Your task to perform on an android device: turn off improve location accuracy Image 0: 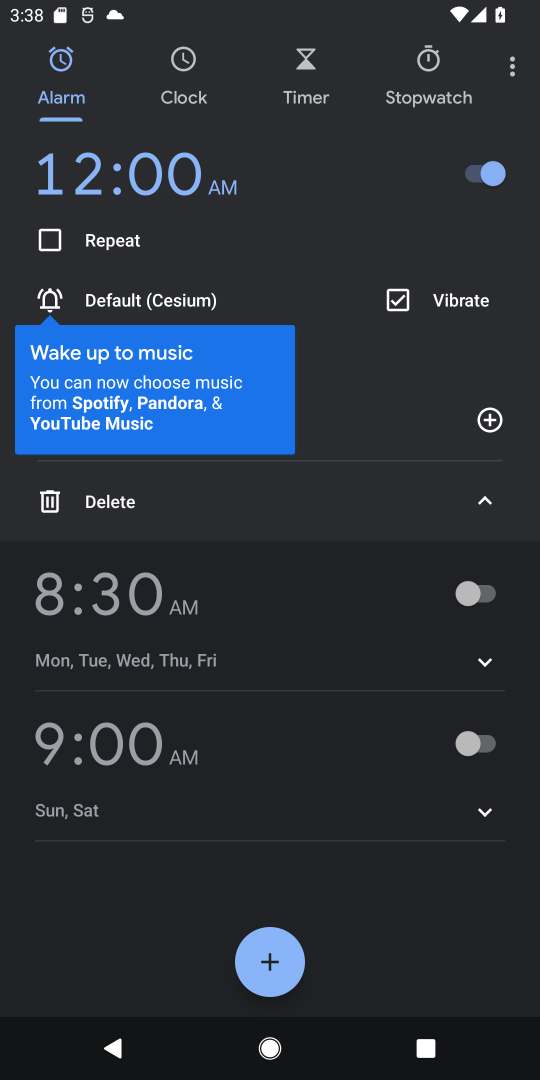
Step 0: press home button
Your task to perform on an android device: turn off improve location accuracy Image 1: 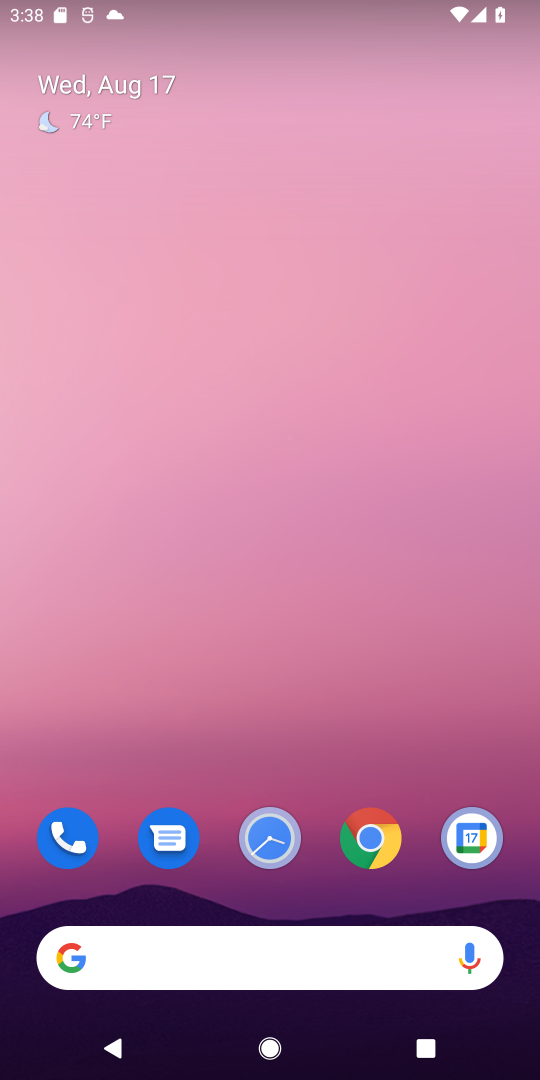
Step 1: drag from (180, 618) to (126, 107)
Your task to perform on an android device: turn off improve location accuracy Image 2: 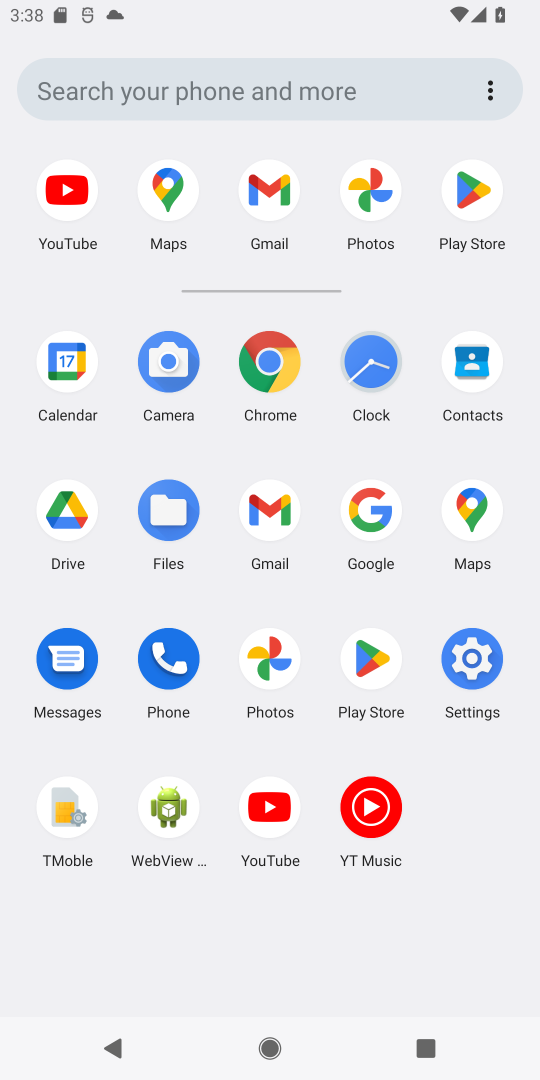
Step 2: click (474, 657)
Your task to perform on an android device: turn off improve location accuracy Image 3: 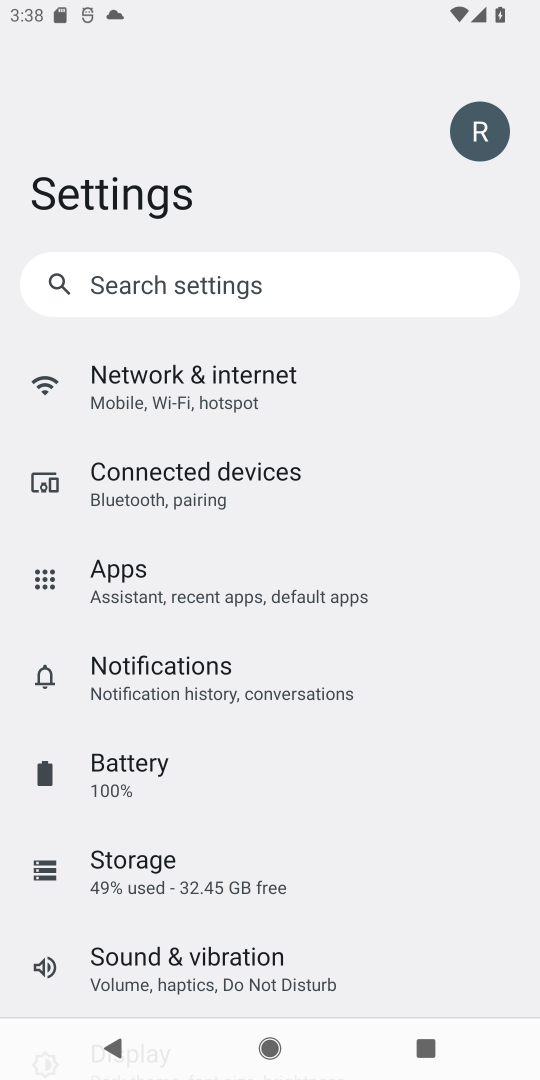
Step 3: drag from (213, 918) to (188, 441)
Your task to perform on an android device: turn off improve location accuracy Image 4: 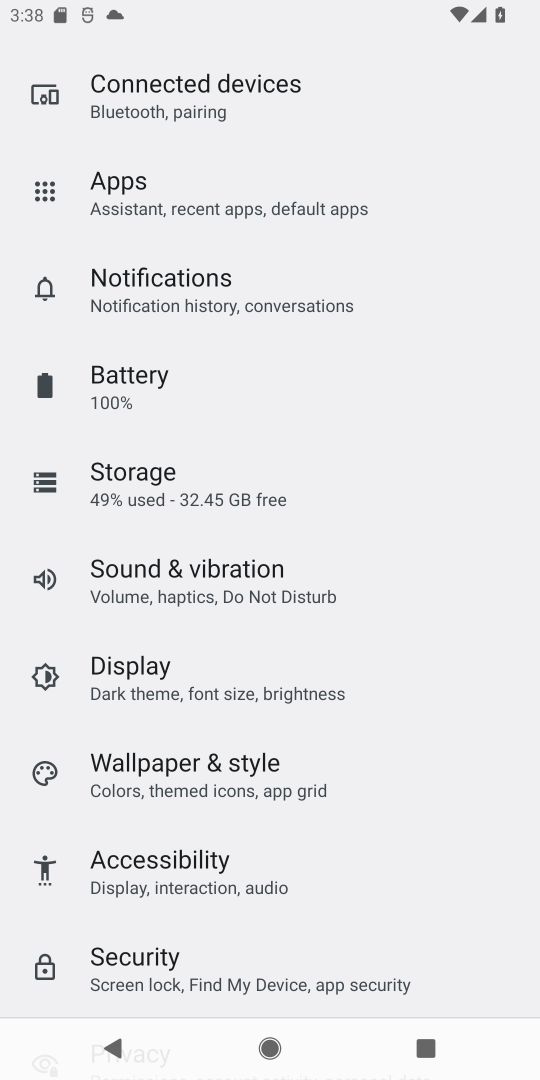
Step 4: drag from (168, 968) to (111, 505)
Your task to perform on an android device: turn off improve location accuracy Image 5: 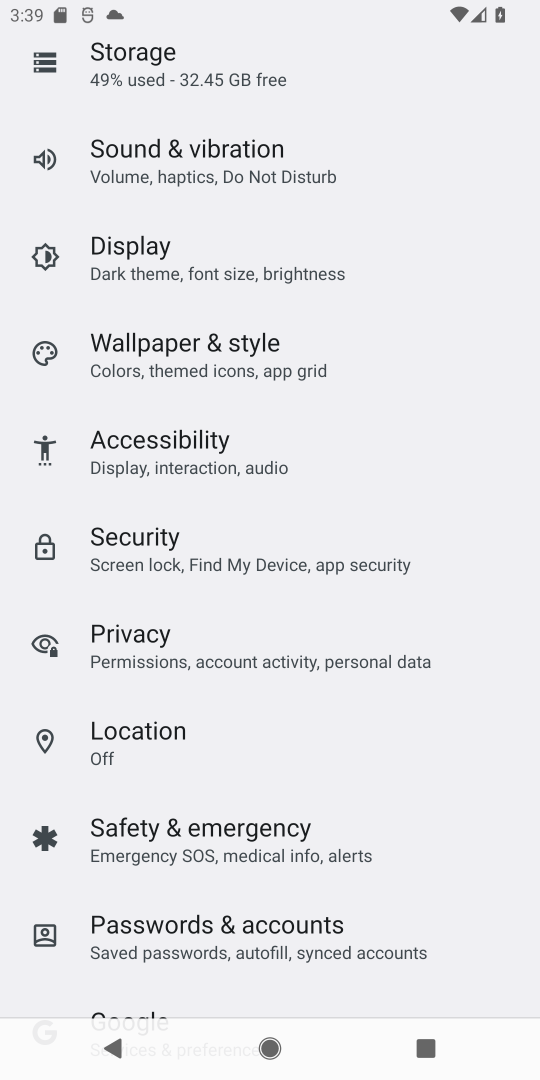
Step 5: click (143, 737)
Your task to perform on an android device: turn off improve location accuracy Image 6: 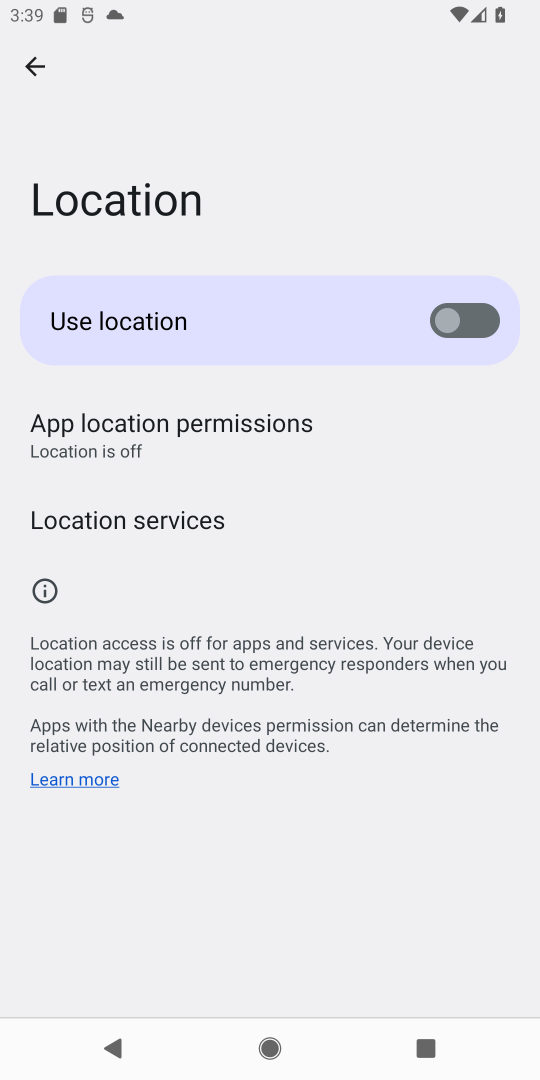
Step 6: click (139, 535)
Your task to perform on an android device: turn off improve location accuracy Image 7: 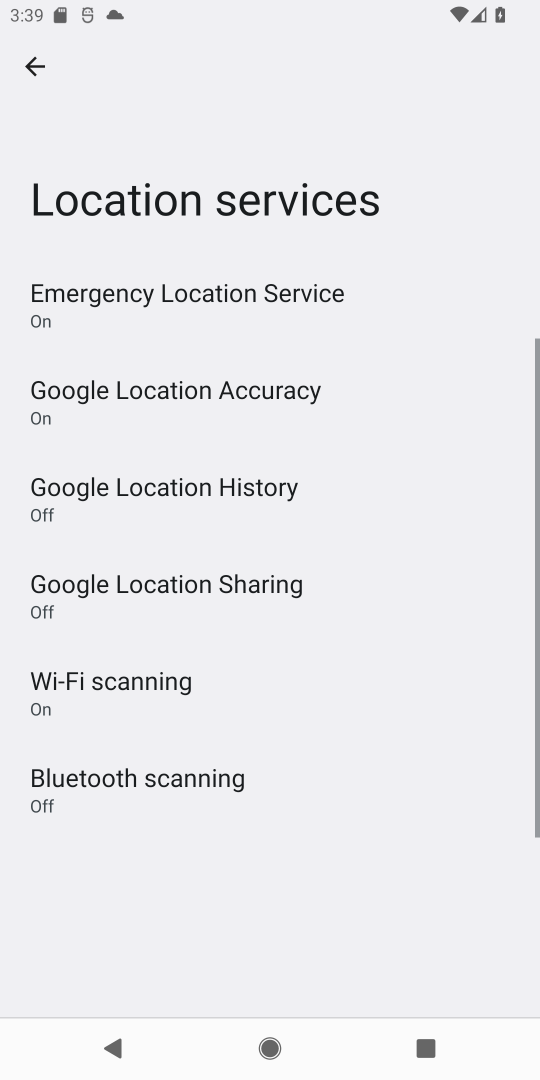
Step 7: click (180, 382)
Your task to perform on an android device: turn off improve location accuracy Image 8: 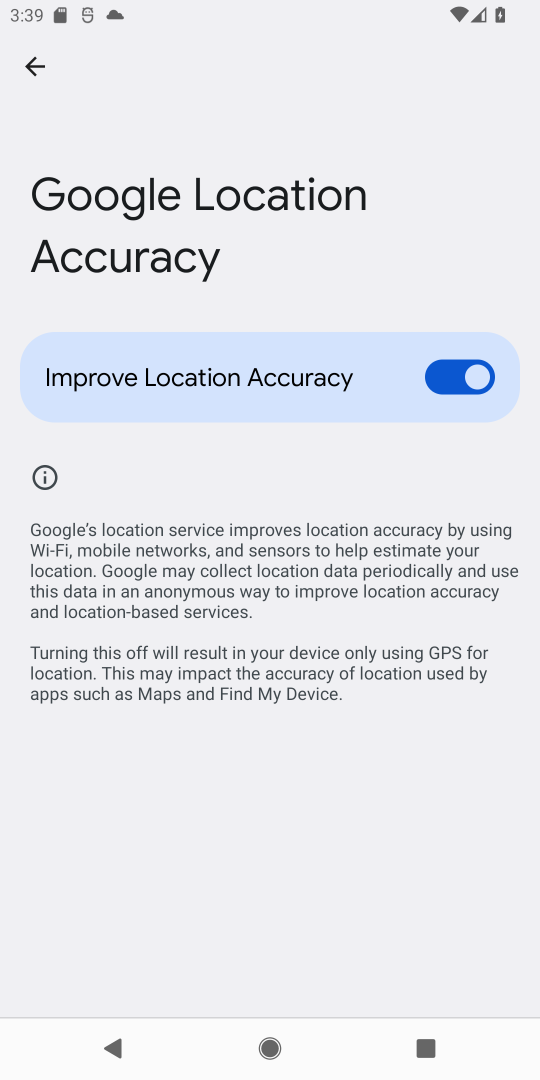
Step 8: click (447, 368)
Your task to perform on an android device: turn off improve location accuracy Image 9: 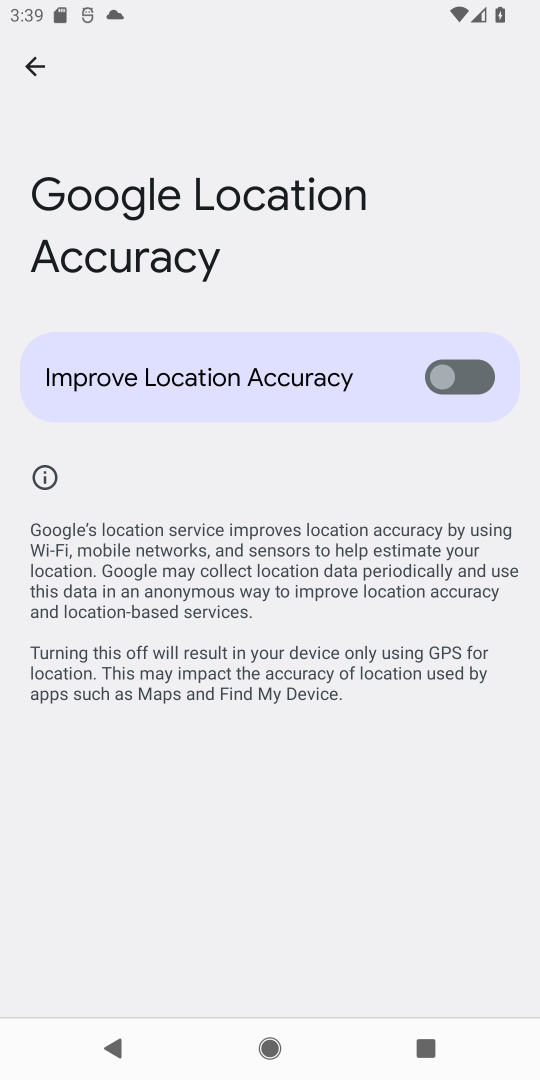
Step 9: task complete